Your task to perform on an android device: toggle notifications settings in the gmail app Image 0: 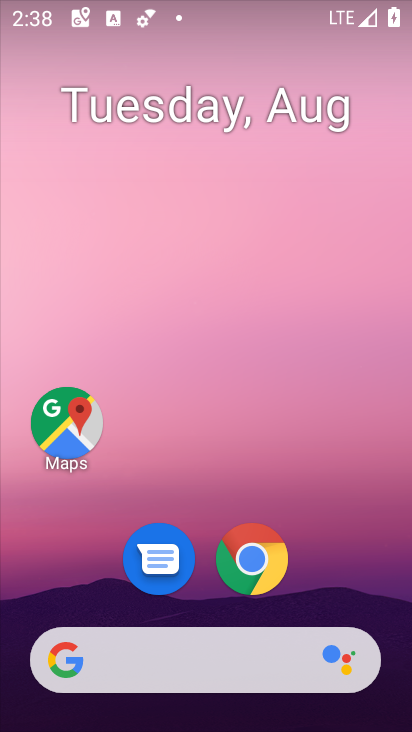
Step 0: drag from (215, 503) to (209, 78)
Your task to perform on an android device: toggle notifications settings in the gmail app Image 1: 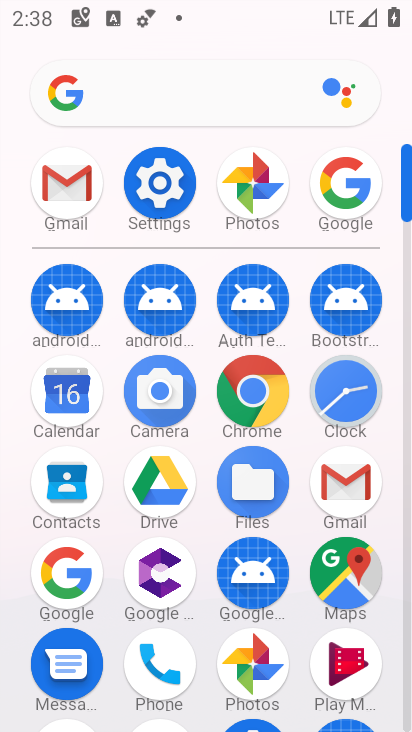
Step 1: click (59, 190)
Your task to perform on an android device: toggle notifications settings in the gmail app Image 2: 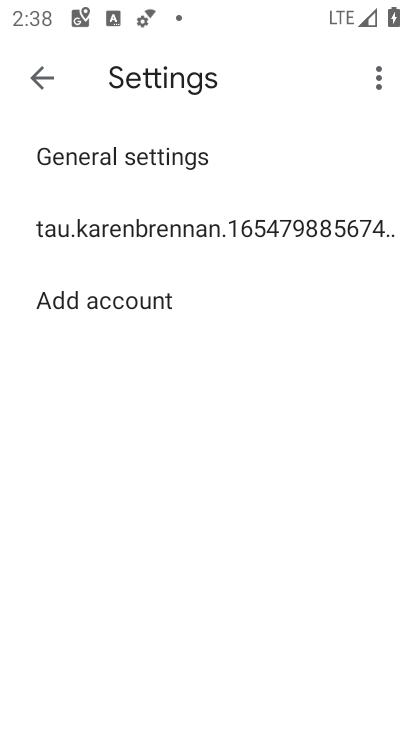
Step 2: click (108, 230)
Your task to perform on an android device: toggle notifications settings in the gmail app Image 3: 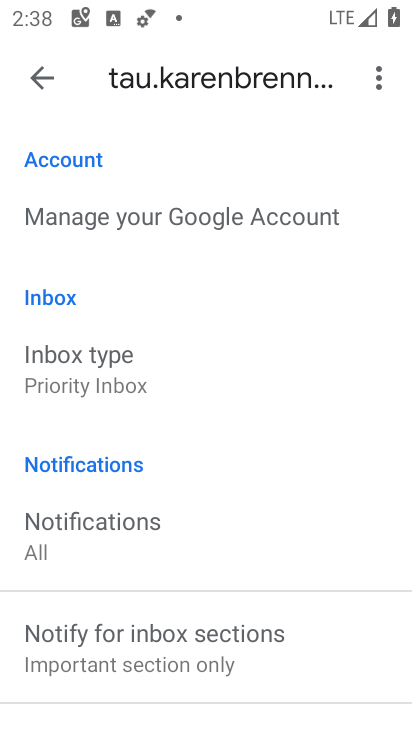
Step 3: drag from (218, 604) to (220, 313)
Your task to perform on an android device: toggle notifications settings in the gmail app Image 4: 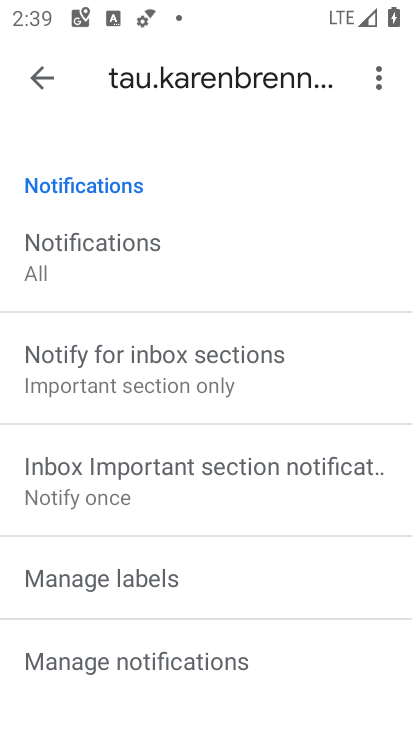
Step 4: click (231, 665)
Your task to perform on an android device: toggle notifications settings in the gmail app Image 5: 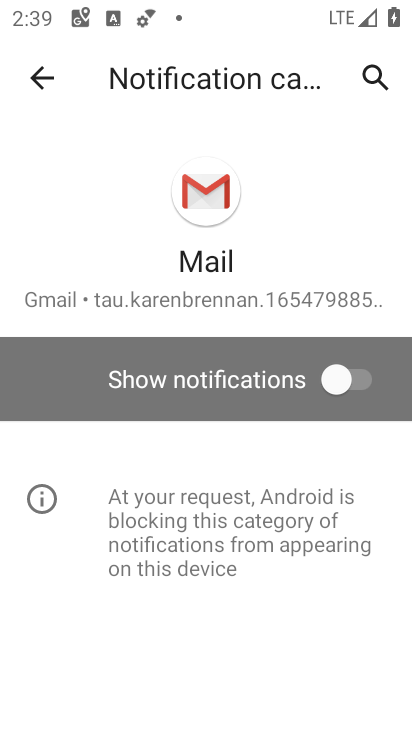
Step 5: click (357, 367)
Your task to perform on an android device: toggle notifications settings in the gmail app Image 6: 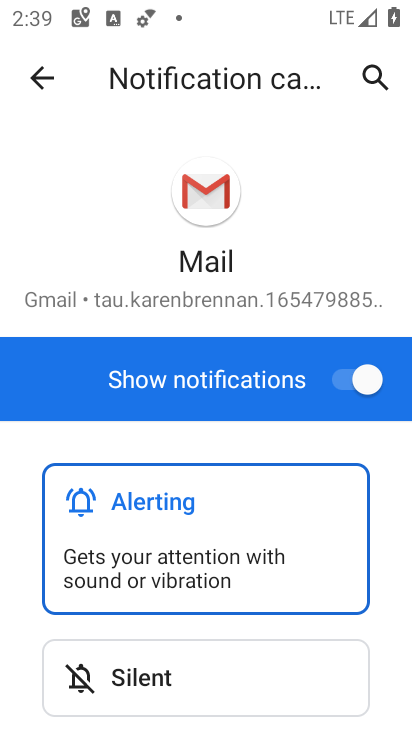
Step 6: task complete